Your task to perform on an android device: open app "Messenger Lite" (install if not already installed) and go to login screen Image 0: 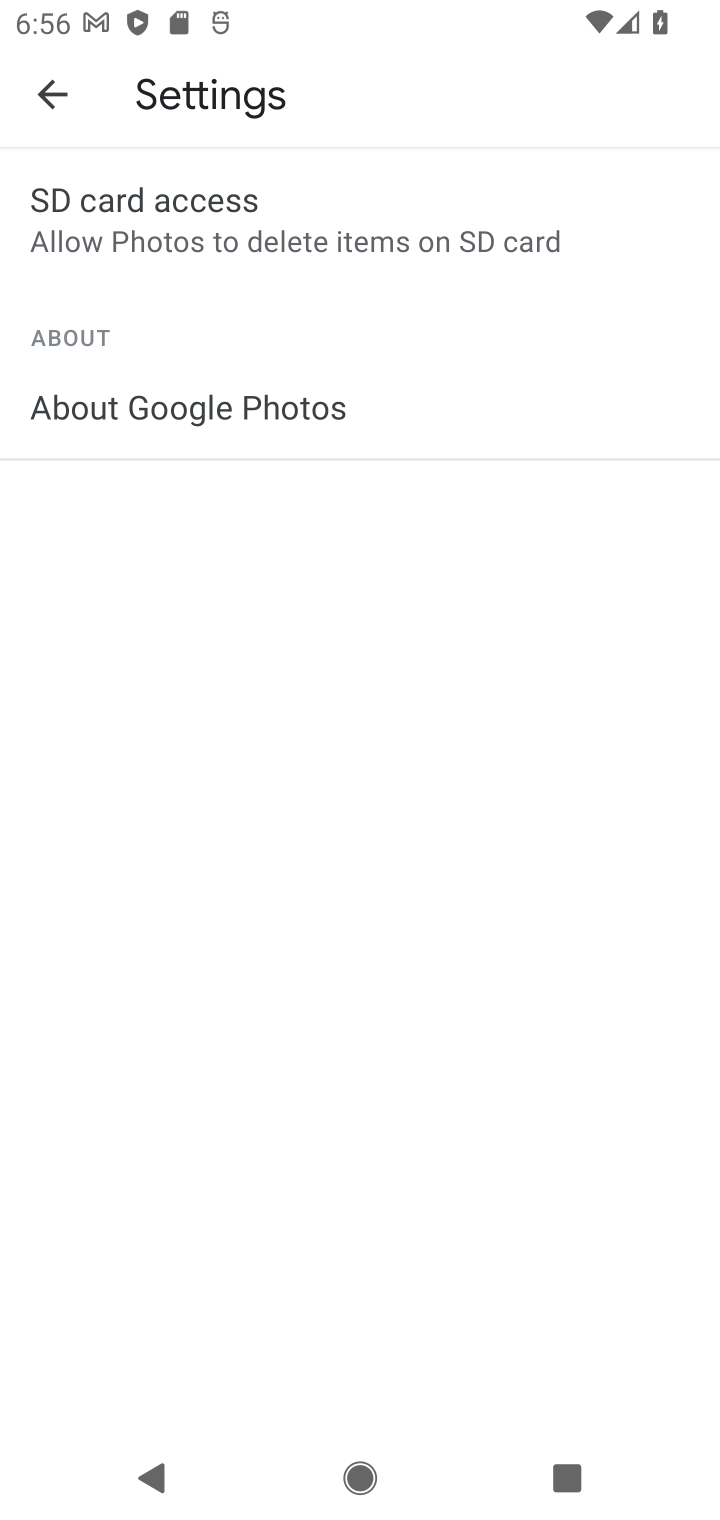
Step 0: press back button
Your task to perform on an android device: open app "Messenger Lite" (install if not already installed) and go to login screen Image 1: 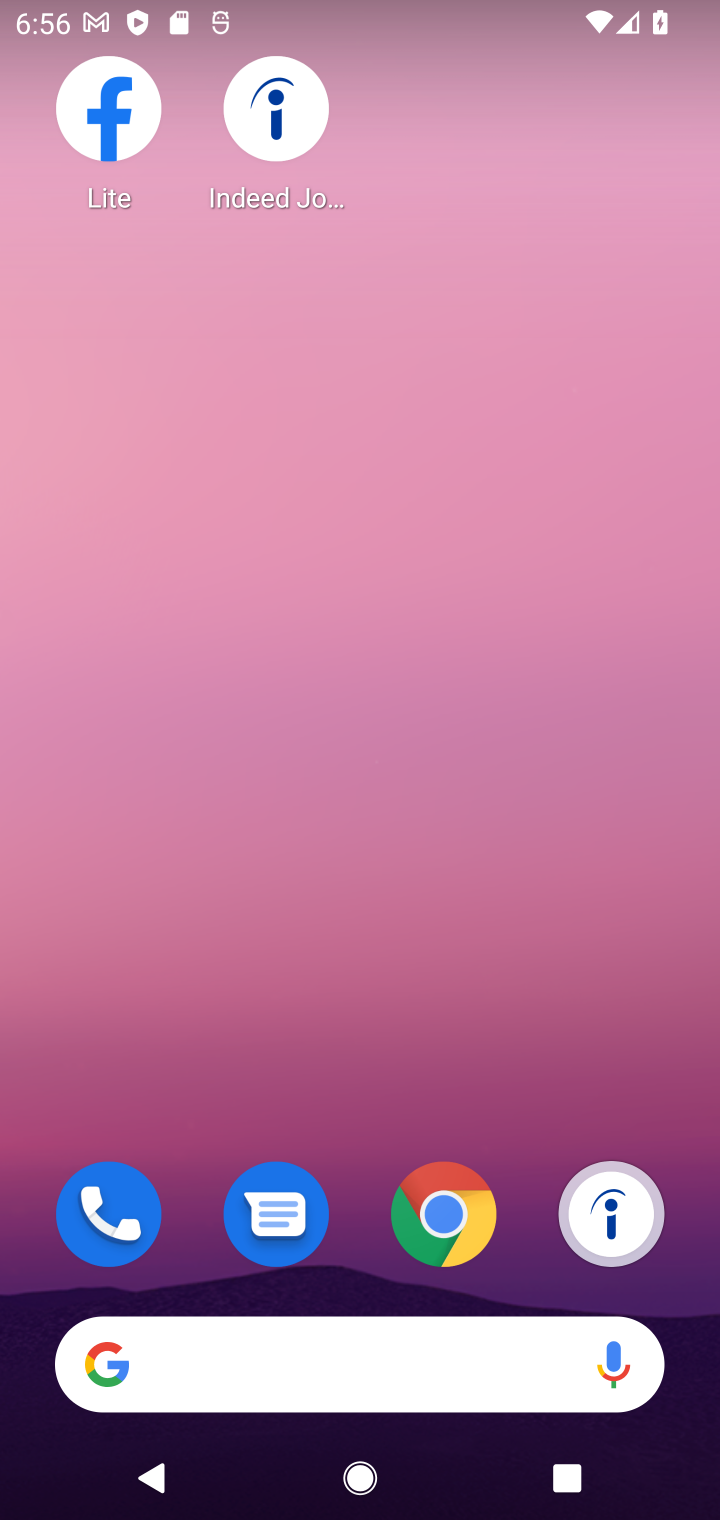
Step 1: drag from (381, 996) to (393, 125)
Your task to perform on an android device: open app "Messenger Lite" (install if not already installed) and go to login screen Image 2: 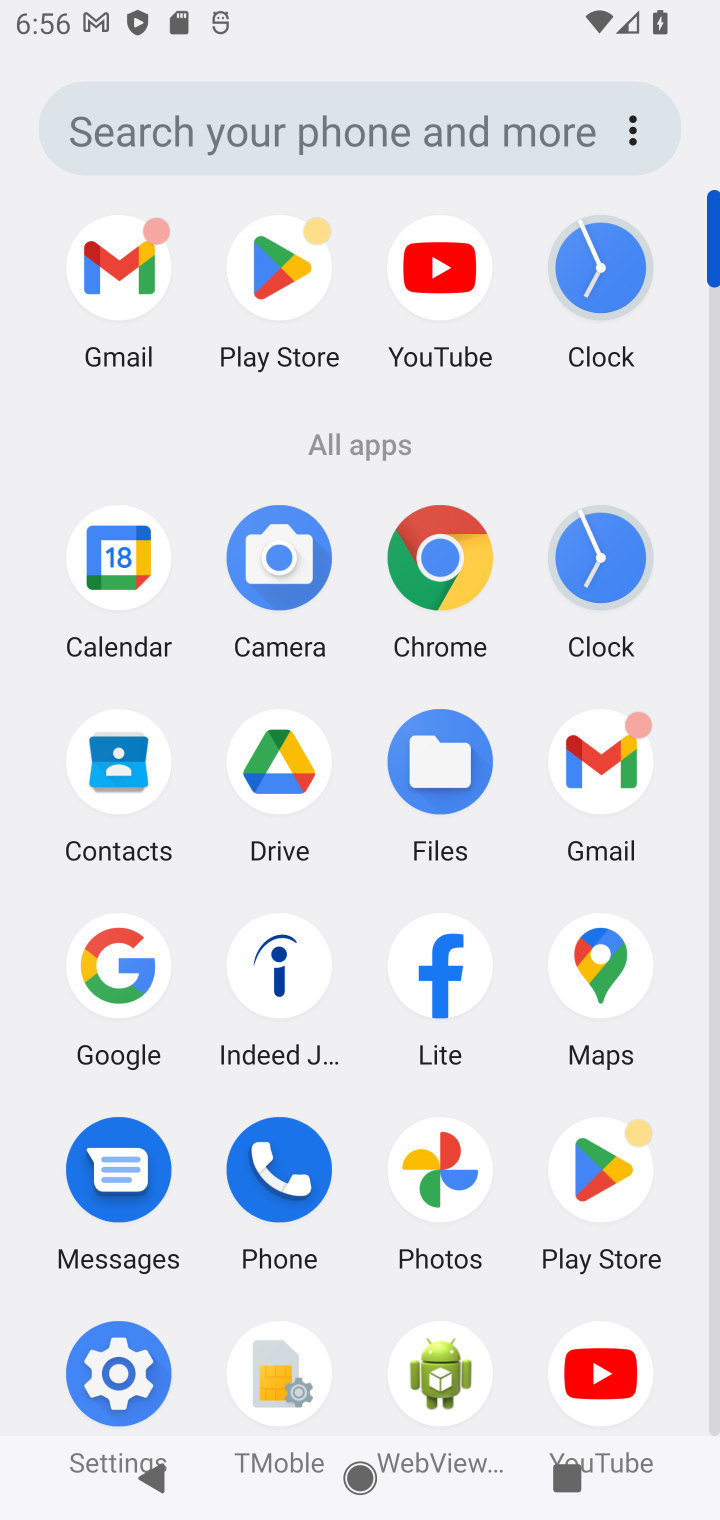
Step 2: click (603, 1188)
Your task to perform on an android device: open app "Messenger Lite" (install if not already installed) and go to login screen Image 3: 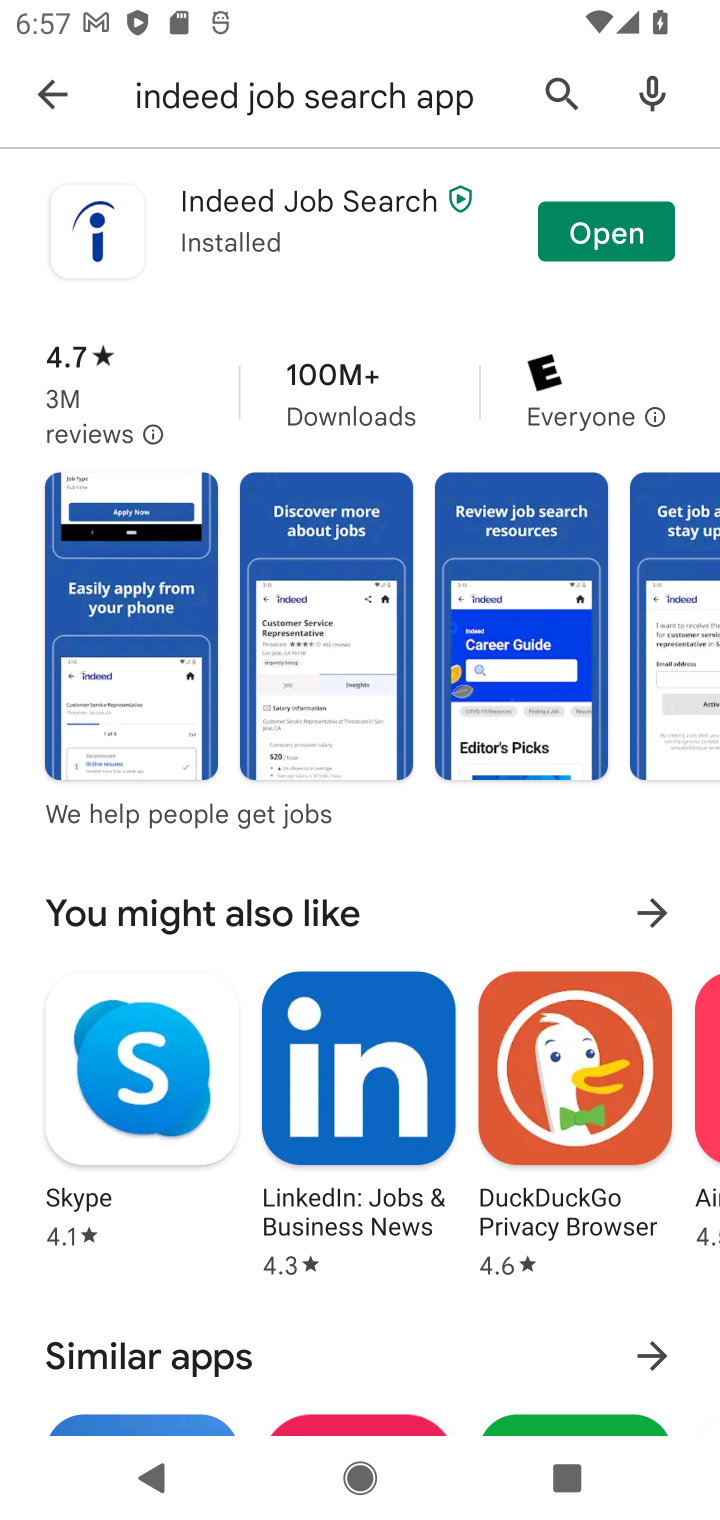
Step 3: click (577, 95)
Your task to perform on an android device: open app "Messenger Lite" (install if not already installed) and go to login screen Image 4: 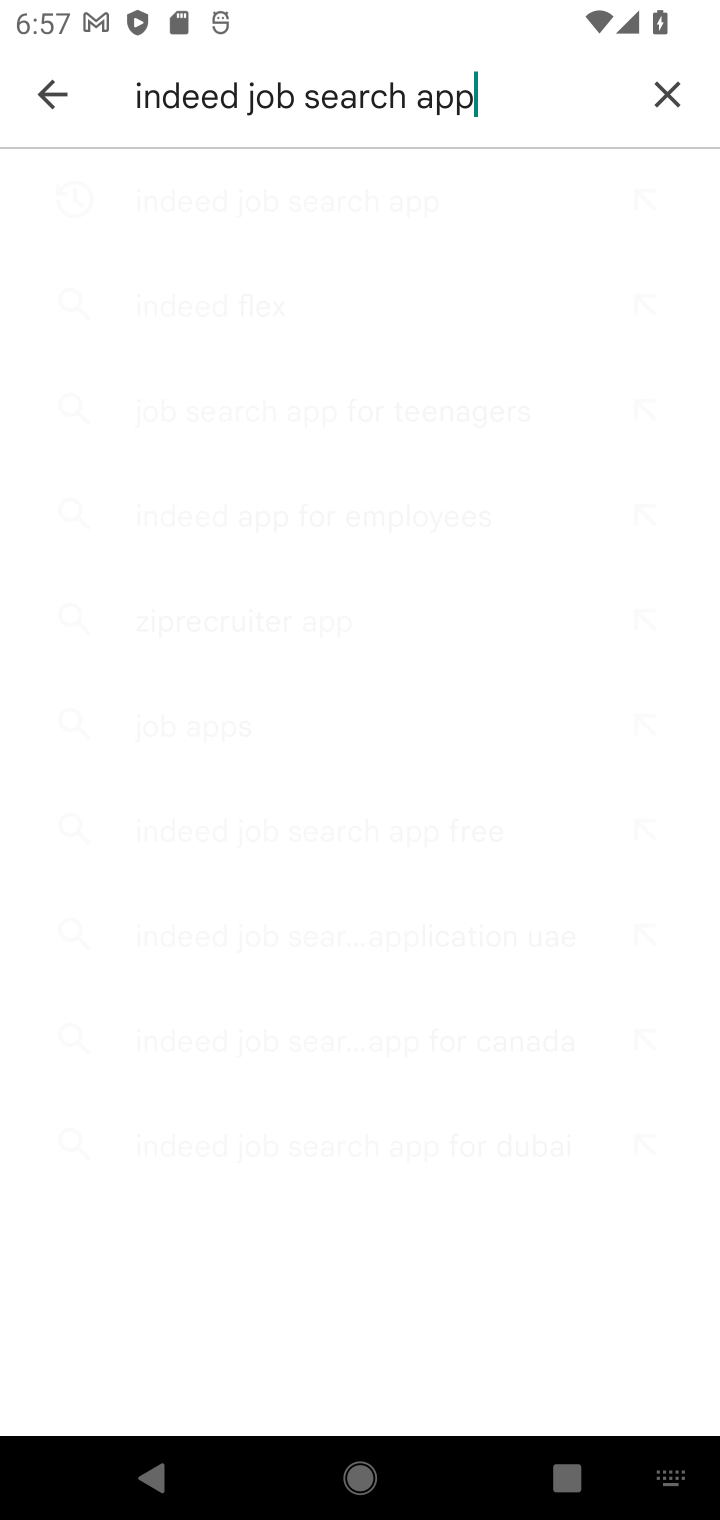
Step 4: click (665, 85)
Your task to perform on an android device: open app "Messenger Lite" (install if not already installed) and go to login screen Image 5: 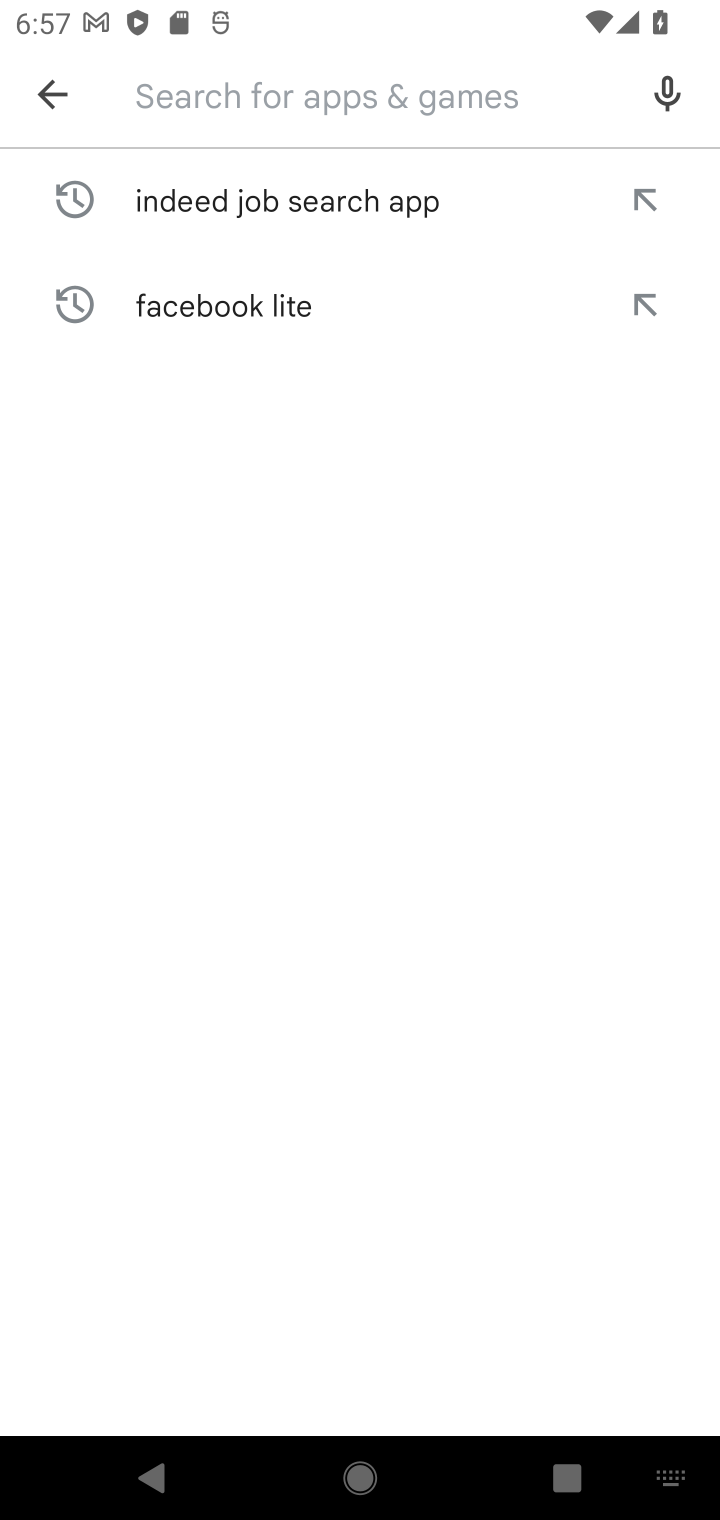
Step 5: click (253, 107)
Your task to perform on an android device: open app "Messenger Lite" (install if not already installed) and go to login screen Image 6: 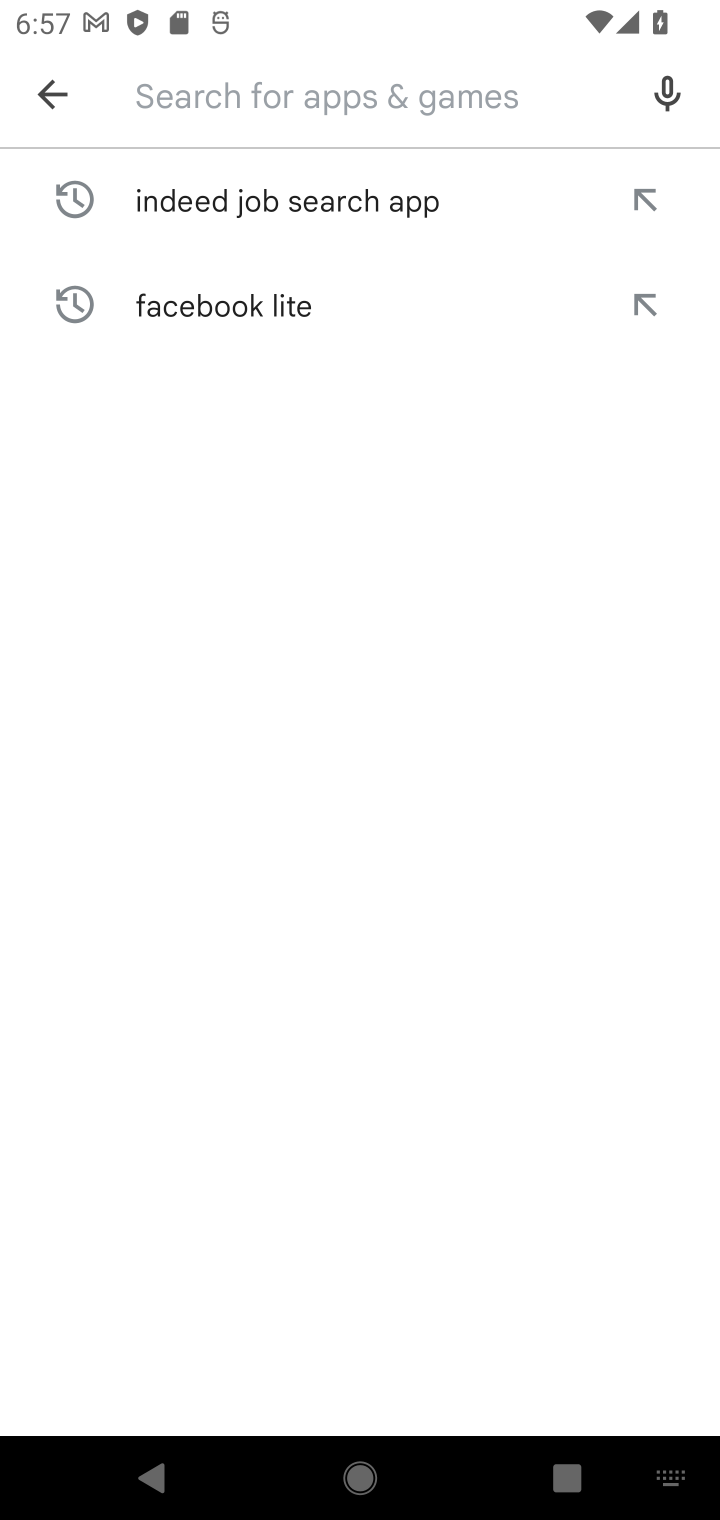
Step 6: type "messenger lite"
Your task to perform on an android device: open app "Messenger Lite" (install if not already installed) and go to login screen Image 7: 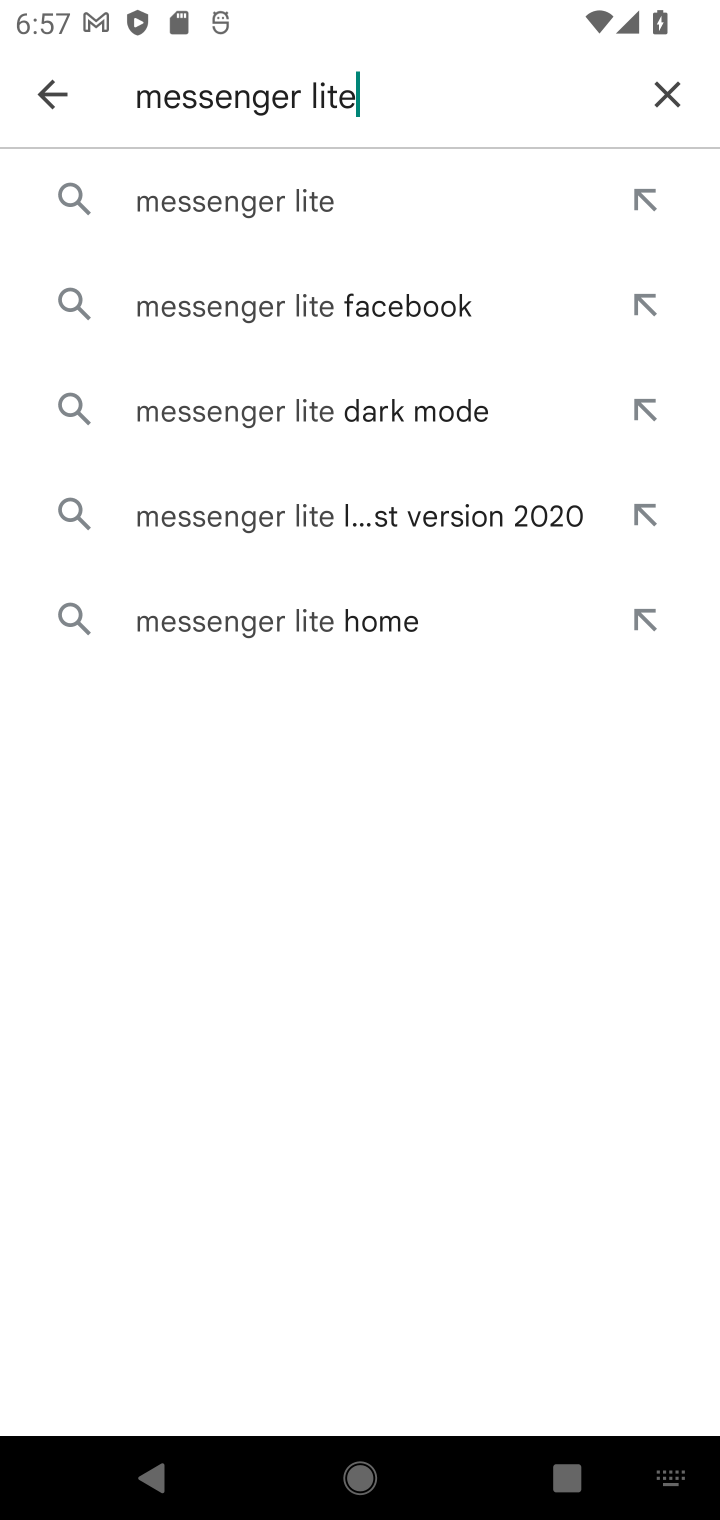
Step 7: click (259, 191)
Your task to perform on an android device: open app "Messenger Lite" (install if not already installed) and go to login screen Image 8: 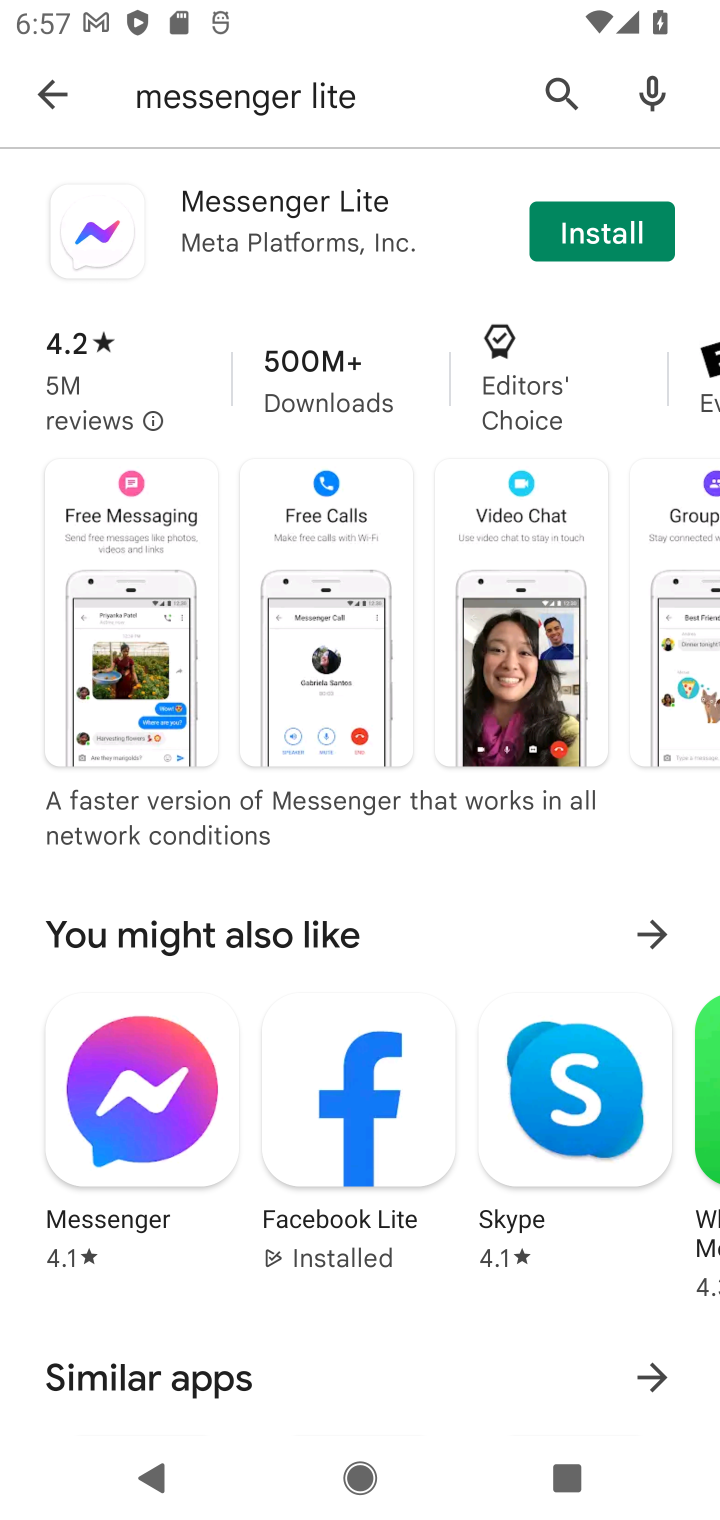
Step 8: click (600, 241)
Your task to perform on an android device: open app "Messenger Lite" (install if not already installed) and go to login screen Image 9: 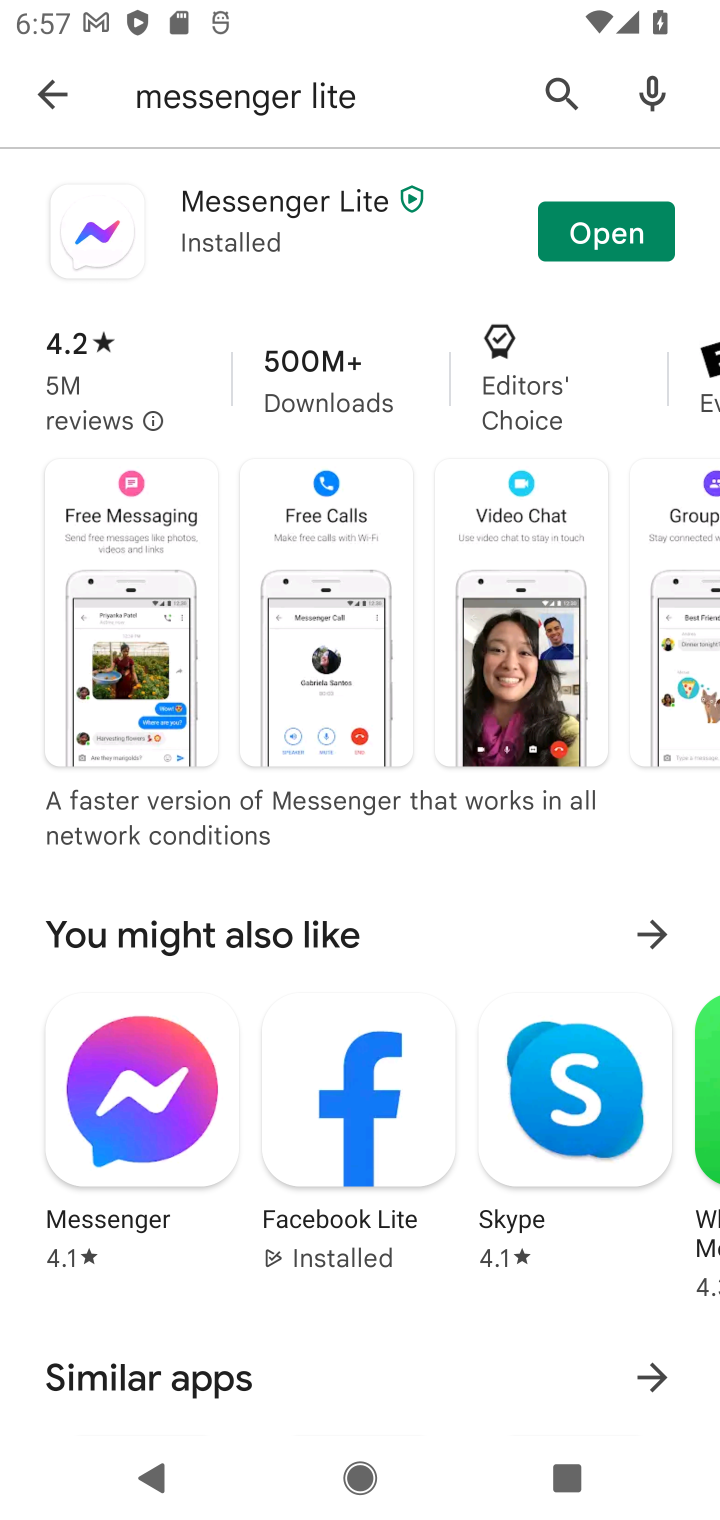
Step 9: click (615, 222)
Your task to perform on an android device: open app "Messenger Lite" (install if not already installed) and go to login screen Image 10: 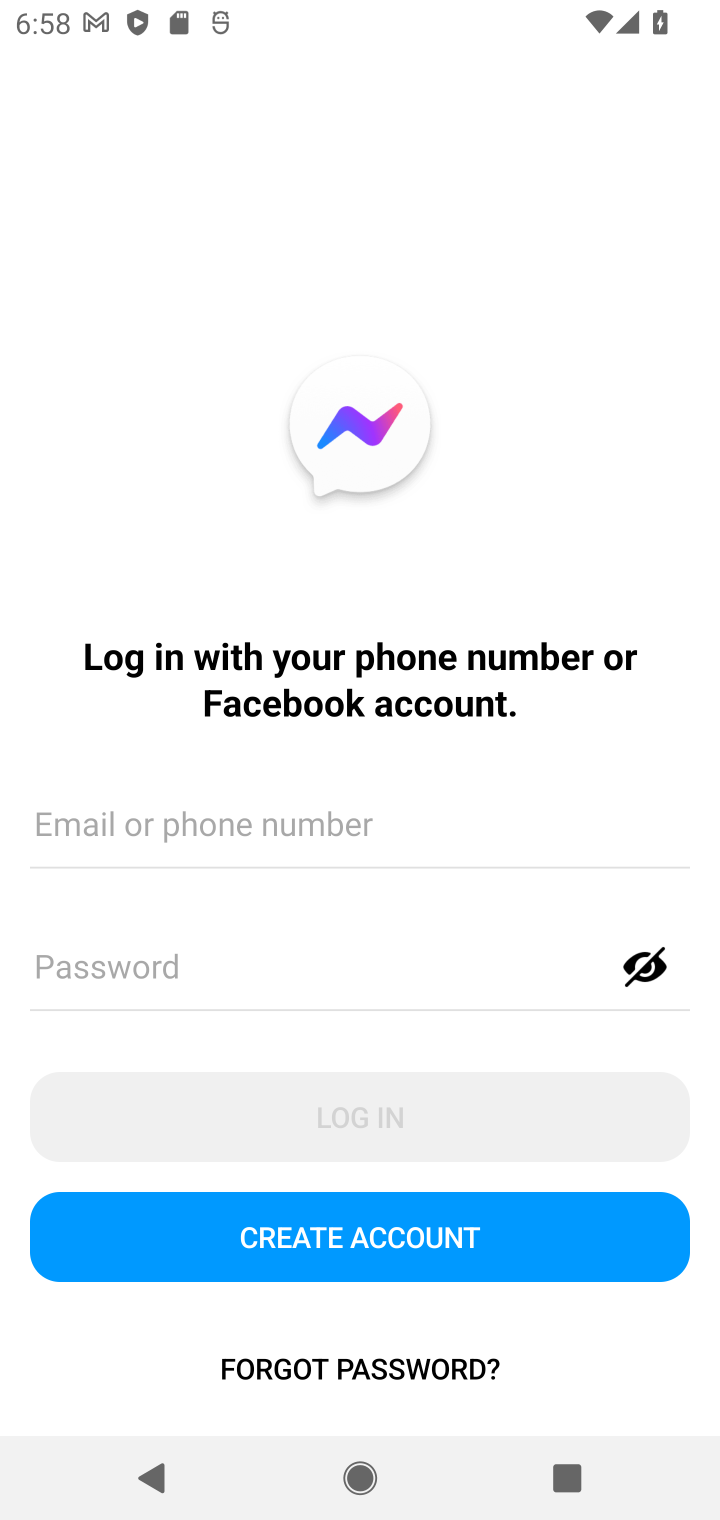
Step 10: task complete